Your task to perform on an android device: toggle notification dots Image 0: 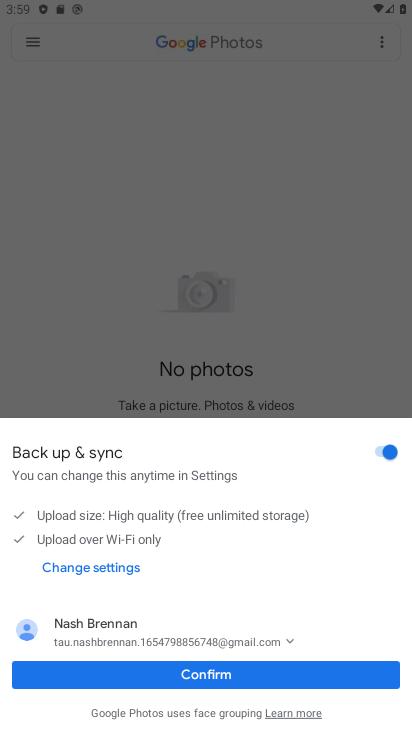
Step 0: press home button
Your task to perform on an android device: toggle notification dots Image 1: 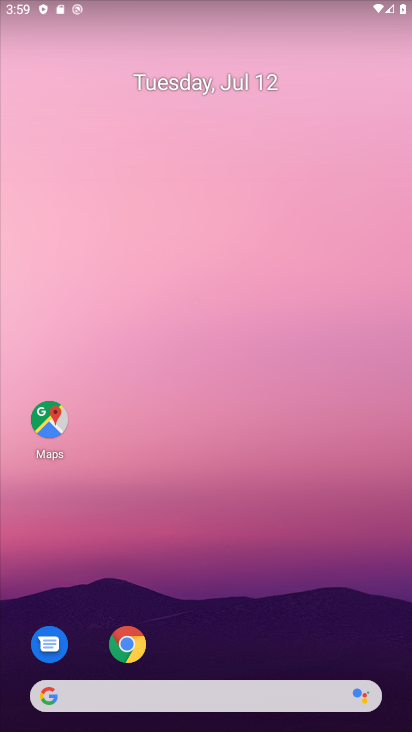
Step 1: drag from (232, 707) to (159, 186)
Your task to perform on an android device: toggle notification dots Image 2: 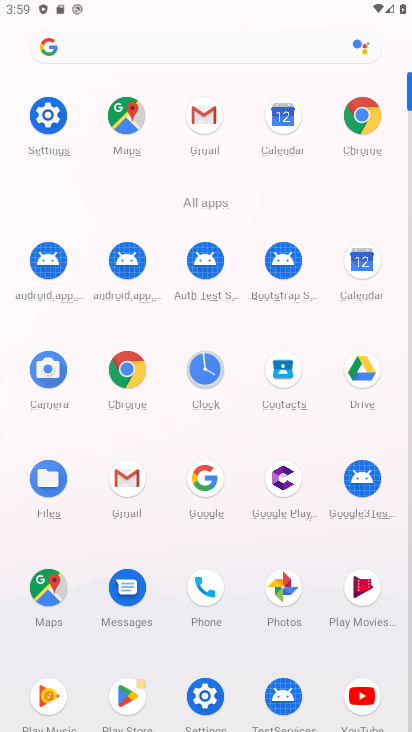
Step 2: click (61, 122)
Your task to perform on an android device: toggle notification dots Image 3: 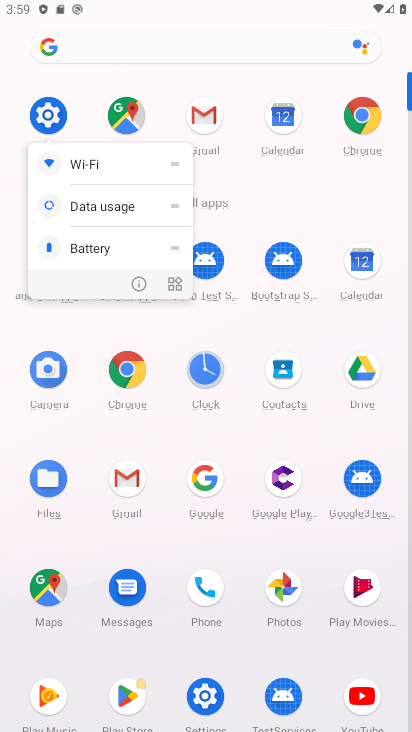
Step 3: click (50, 124)
Your task to perform on an android device: toggle notification dots Image 4: 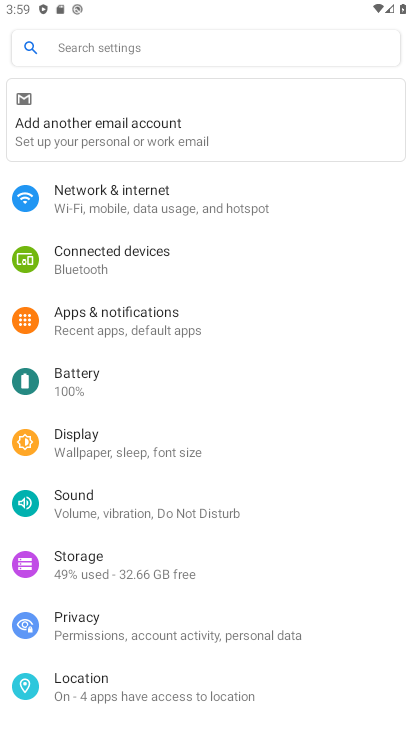
Step 4: click (115, 326)
Your task to perform on an android device: toggle notification dots Image 5: 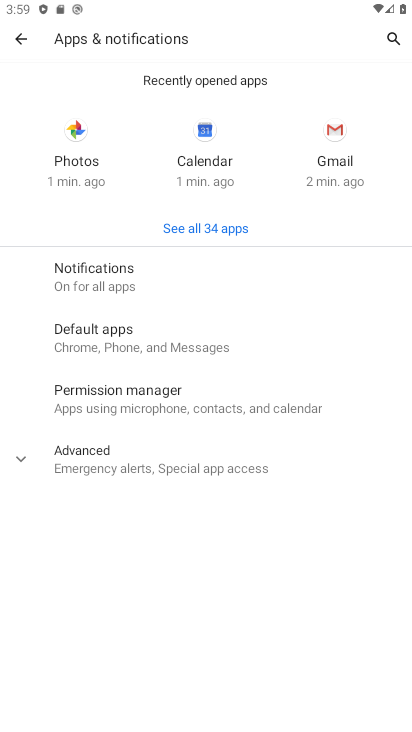
Step 5: click (137, 295)
Your task to perform on an android device: toggle notification dots Image 6: 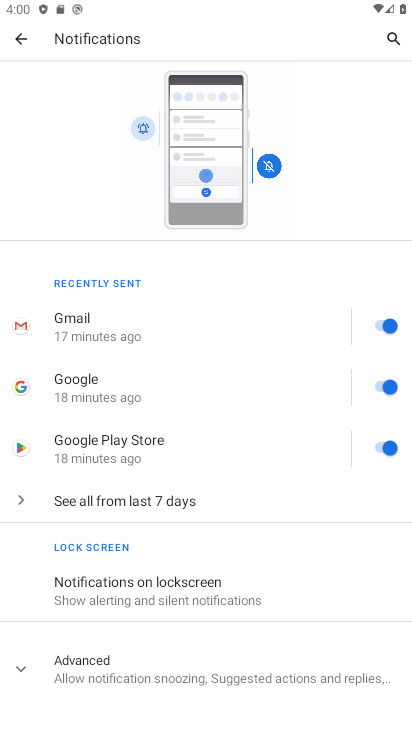
Step 6: click (234, 651)
Your task to perform on an android device: toggle notification dots Image 7: 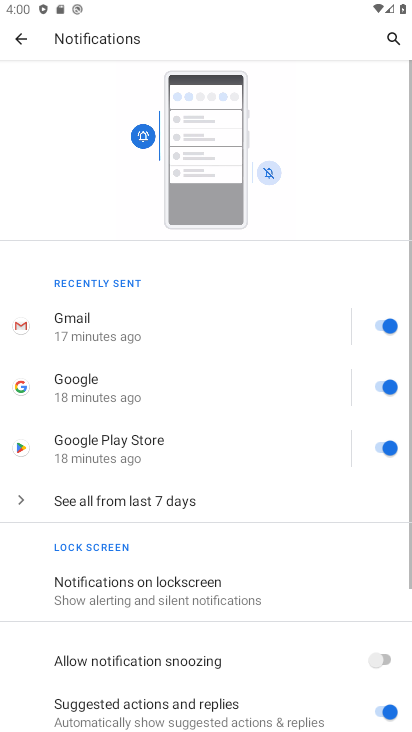
Step 7: drag from (188, 632) to (167, 251)
Your task to perform on an android device: toggle notification dots Image 8: 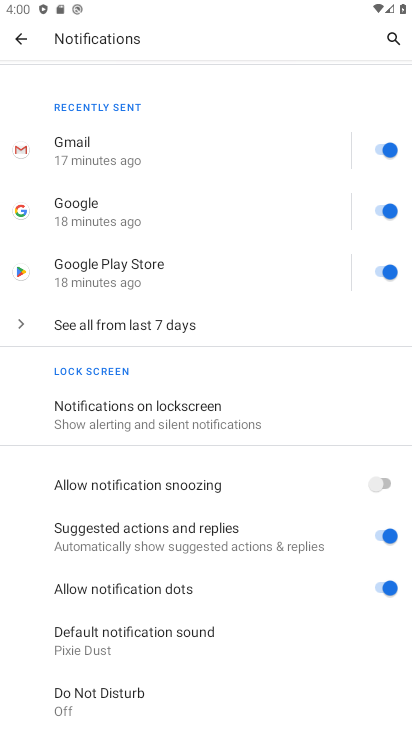
Step 8: click (385, 586)
Your task to perform on an android device: toggle notification dots Image 9: 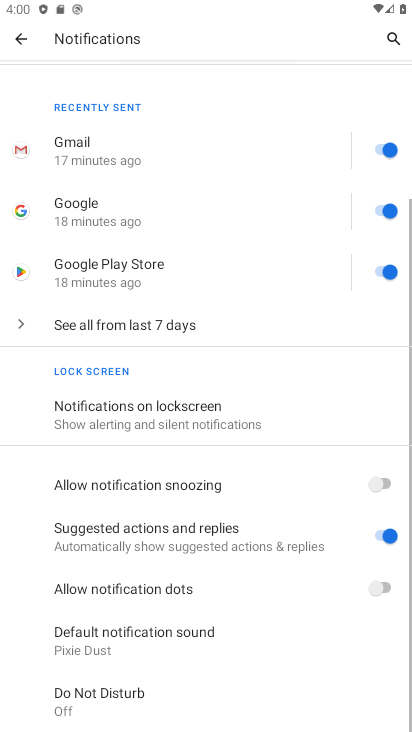
Step 9: task complete